Your task to perform on an android device: toggle pop-ups in chrome Image 0: 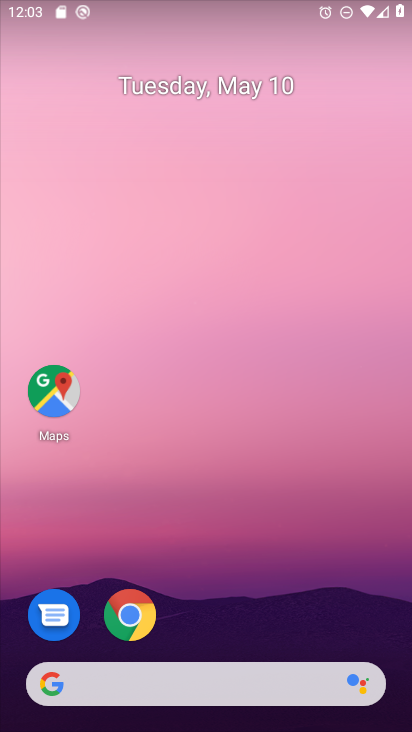
Step 0: drag from (305, 715) to (406, 219)
Your task to perform on an android device: toggle pop-ups in chrome Image 1: 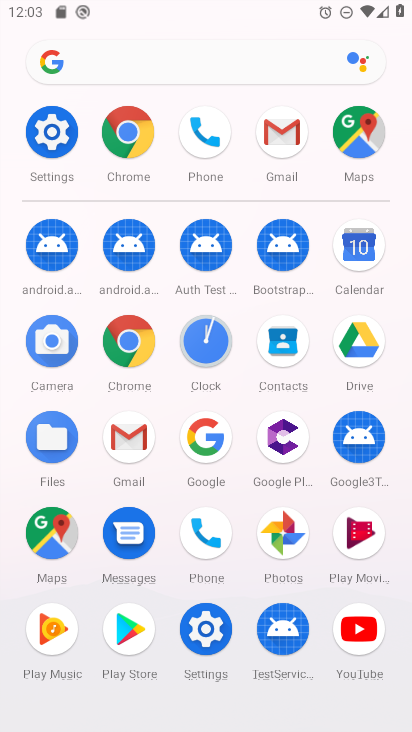
Step 1: click (116, 356)
Your task to perform on an android device: toggle pop-ups in chrome Image 2: 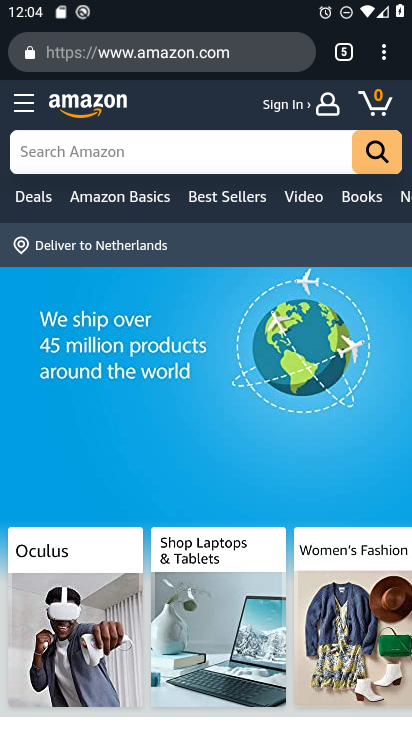
Step 2: click (376, 63)
Your task to perform on an android device: toggle pop-ups in chrome Image 3: 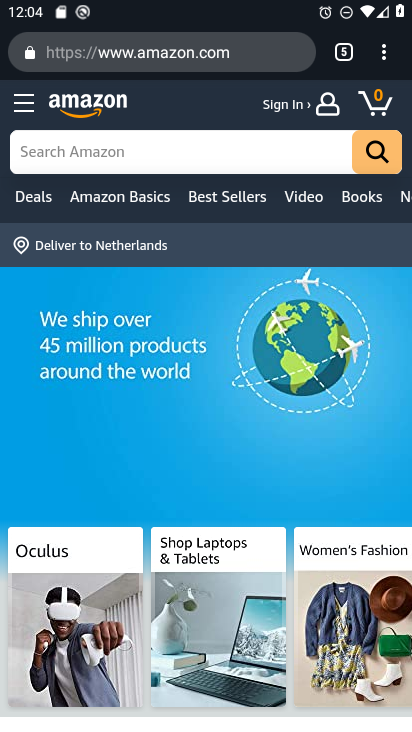
Step 3: click (379, 63)
Your task to perform on an android device: toggle pop-ups in chrome Image 4: 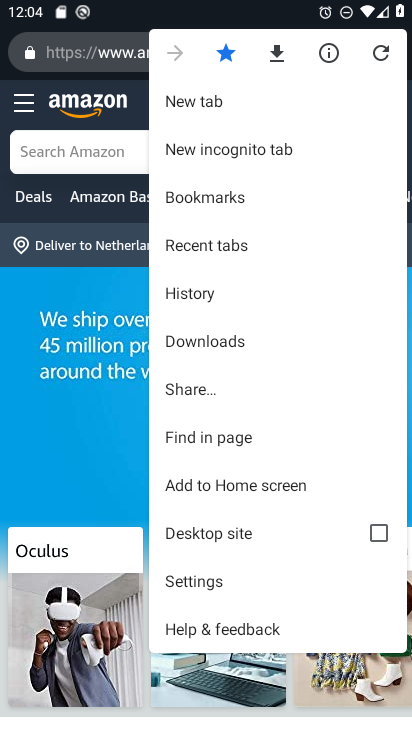
Step 4: click (205, 575)
Your task to perform on an android device: toggle pop-ups in chrome Image 5: 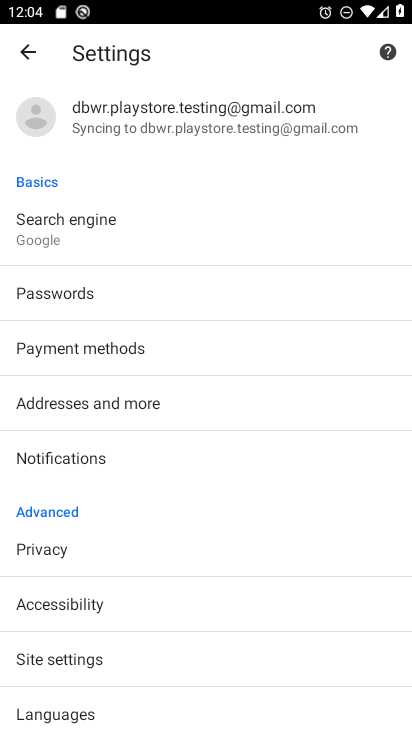
Step 5: click (103, 659)
Your task to perform on an android device: toggle pop-ups in chrome Image 6: 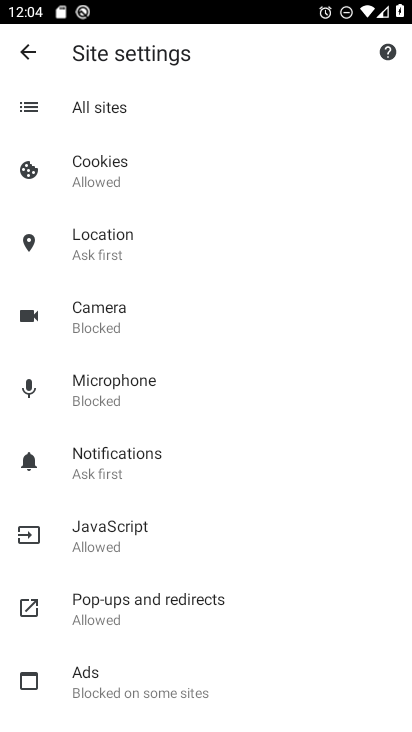
Step 6: click (152, 616)
Your task to perform on an android device: toggle pop-ups in chrome Image 7: 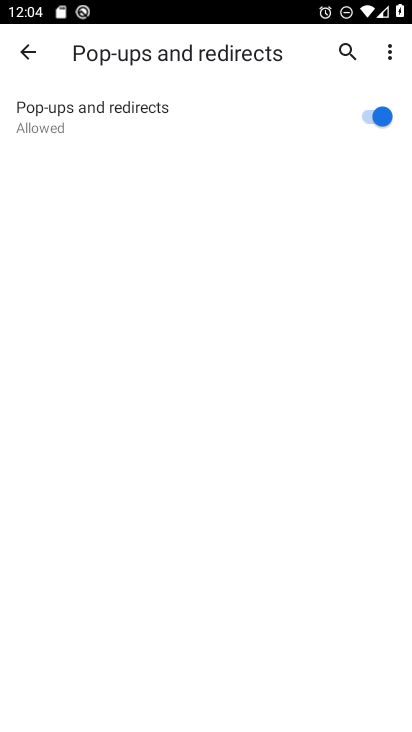
Step 7: click (370, 108)
Your task to perform on an android device: toggle pop-ups in chrome Image 8: 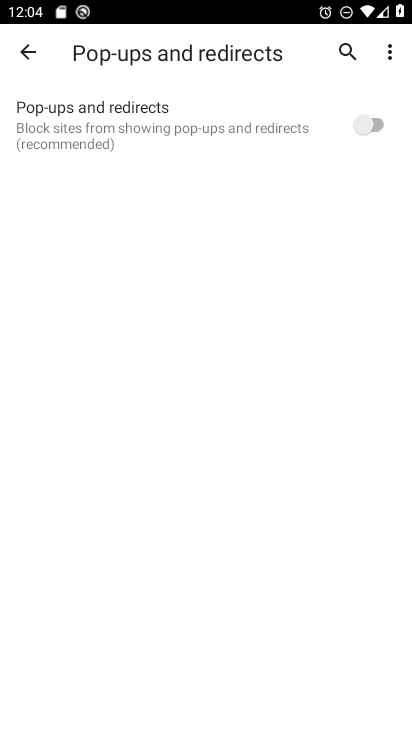
Step 8: click (370, 108)
Your task to perform on an android device: toggle pop-ups in chrome Image 9: 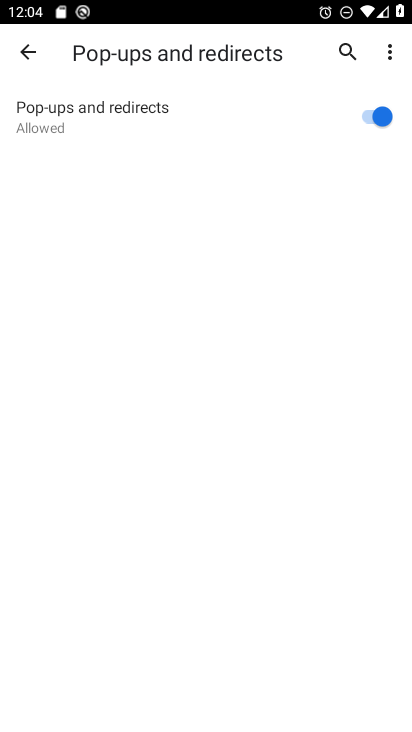
Step 9: task complete